Your task to perform on an android device: Go to CNN.com Image 0: 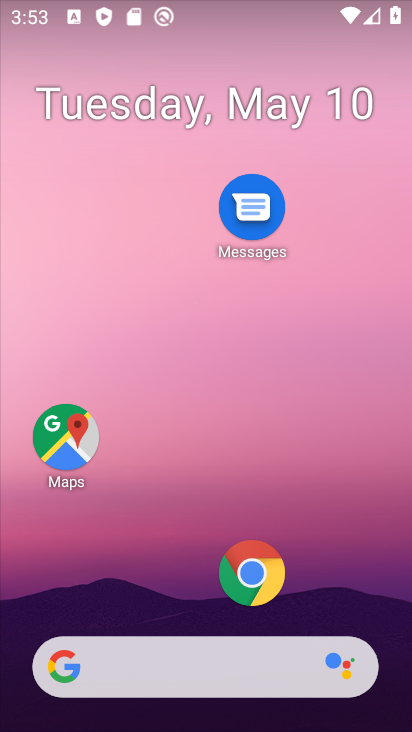
Step 0: click (225, 580)
Your task to perform on an android device: Go to CNN.com Image 1: 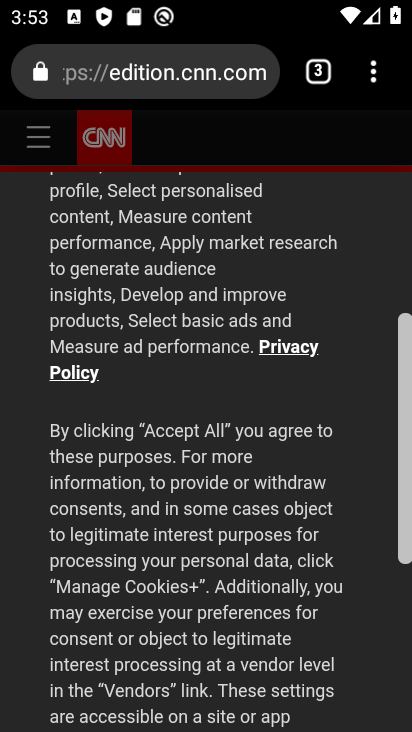
Step 1: click (301, 79)
Your task to perform on an android device: Go to CNN.com Image 2: 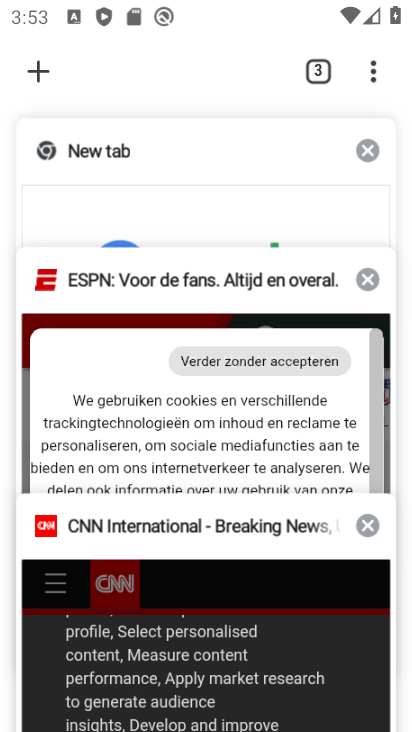
Step 2: click (75, 664)
Your task to perform on an android device: Go to CNN.com Image 3: 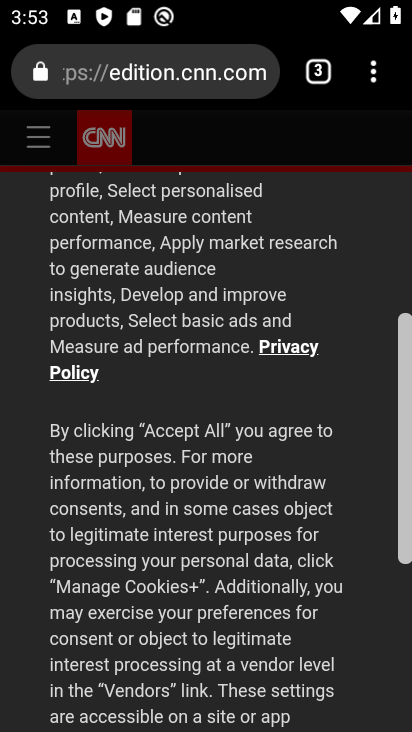
Step 3: task complete